Your task to perform on an android device: turn on the 24-hour format for clock Image 0: 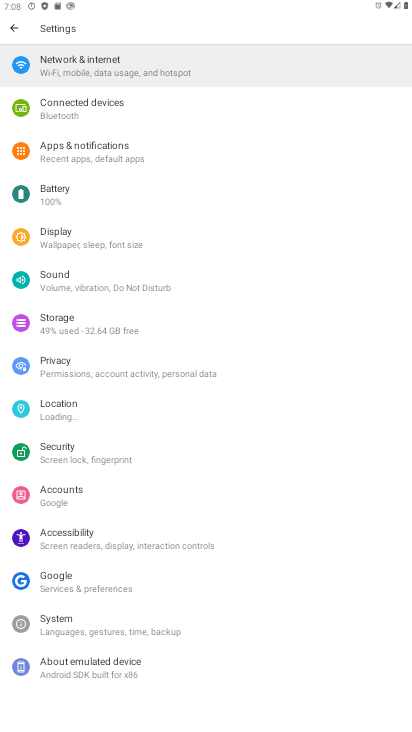
Step 0: press home button
Your task to perform on an android device: turn on the 24-hour format for clock Image 1: 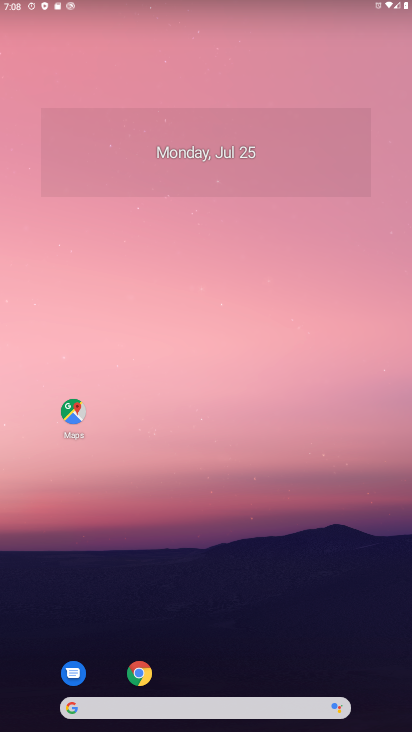
Step 1: drag from (325, 631) to (191, 47)
Your task to perform on an android device: turn on the 24-hour format for clock Image 2: 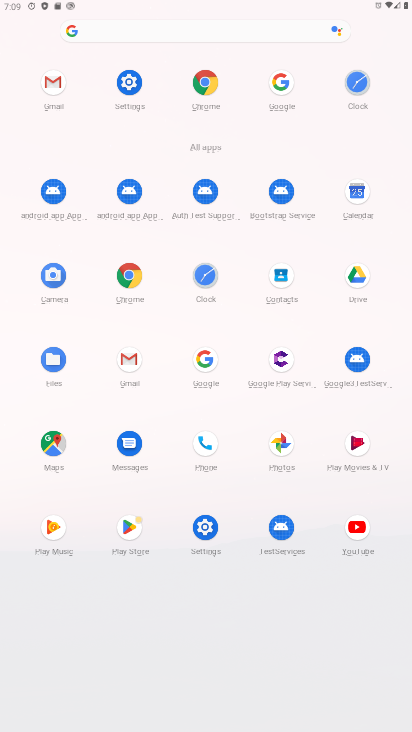
Step 2: click (201, 266)
Your task to perform on an android device: turn on the 24-hour format for clock Image 3: 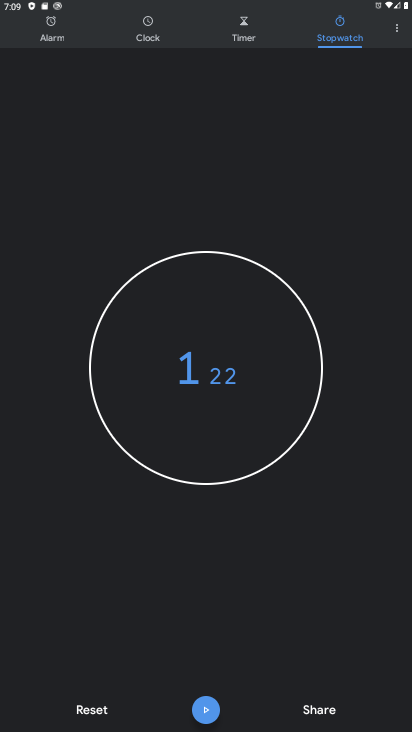
Step 3: click (399, 25)
Your task to perform on an android device: turn on the 24-hour format for clock Image 4: 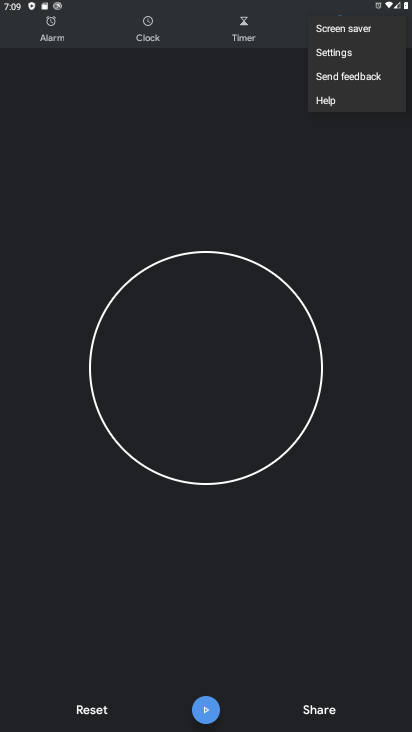
Step 4: click (351, 57)
Your task to perform on an android device: turn on the 24-hour format for clock Image 5: 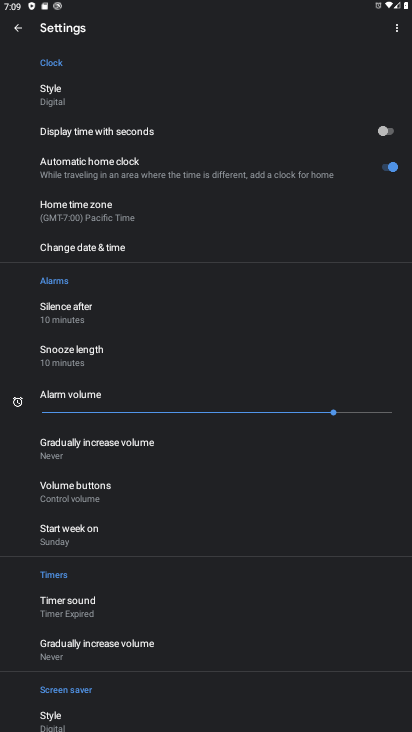
Step 5: click (102, 245)
Your task to perform on an android device: turn on the 24-hour format for clock Image 6: 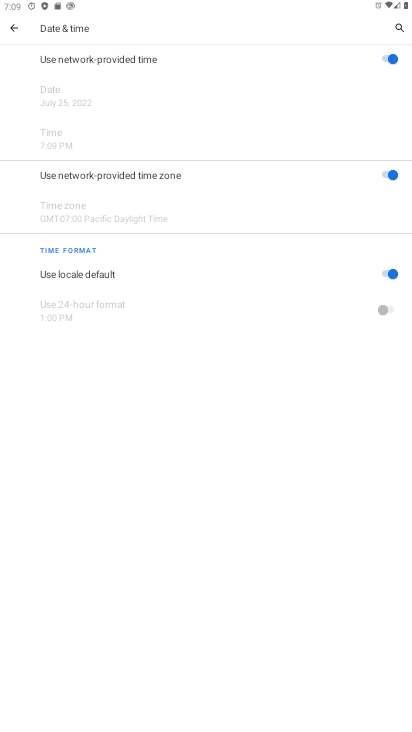
Step 6: task complete